Your task to perform on an android device: turn off javascript in the chrome app Image 0: 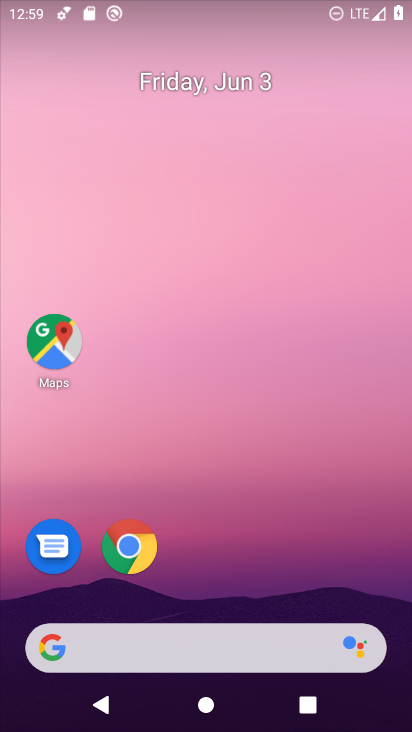
Step 0: click (132, 548)
Your task to perform on an android device: turn off javascript in the chrome app Image 1: 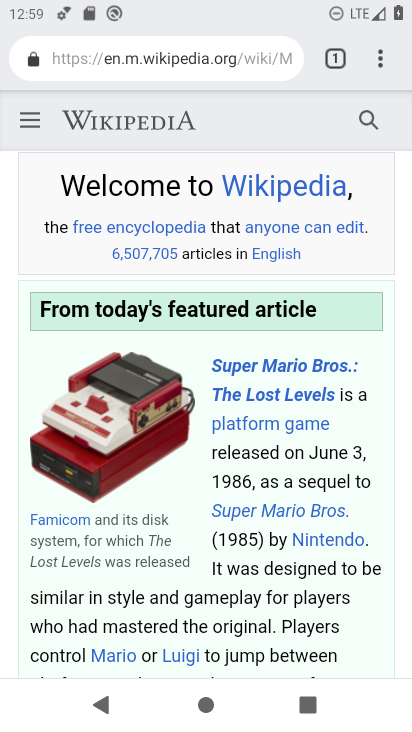
Step 1: click (382, 60)
Your task to perform on an android device: turn off javascript in the chrome app Image 2: 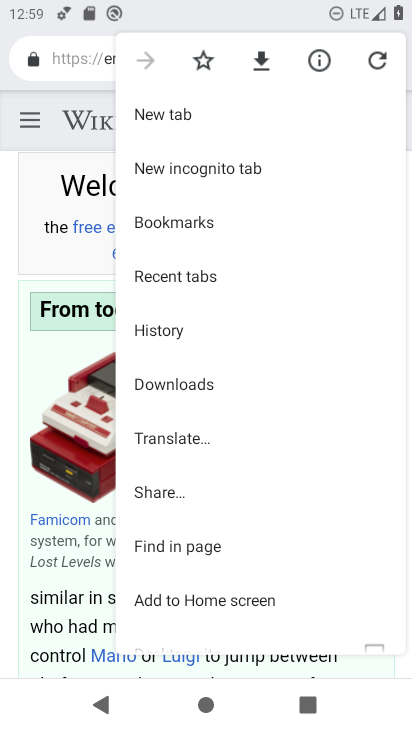
Step 2: drag from (176, 526) to (254, 440)
Your task to perform on an android device: turn off javascript in the chrome app Image 3: 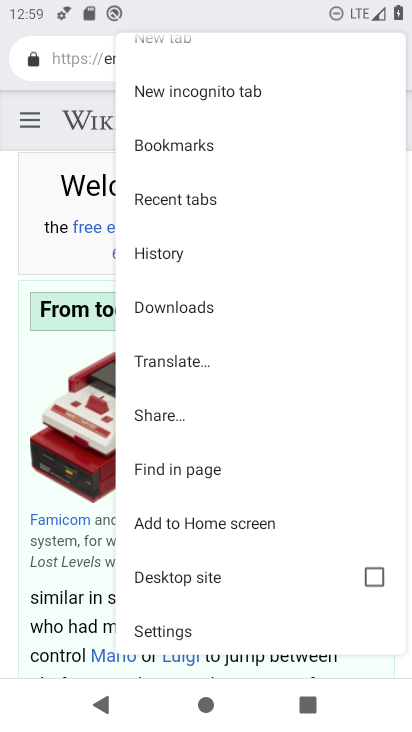
Step 3: drag from (183, 599) to (215, 507)
Your task to perform on an android device: turn off javascript in the chrome app Image 4: 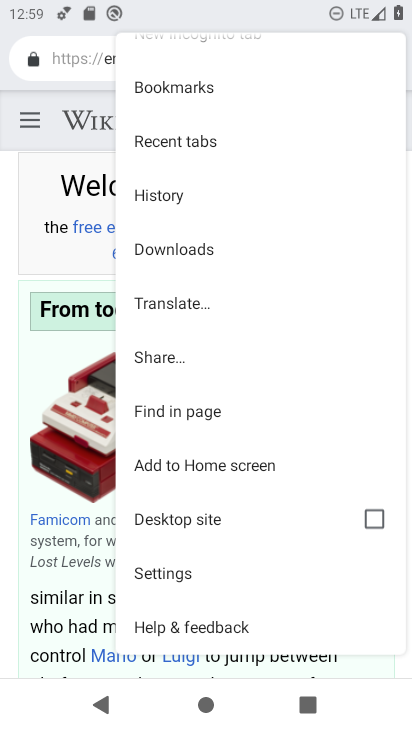
Step 4: click (181, 583)
Your task to perform on an android device: turn off javascript in the chrome app Image 5: 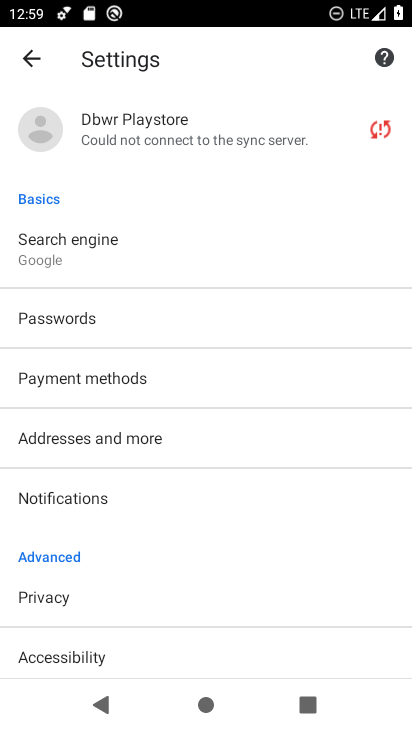
Step 5: drag from (102, 514) to (139, 442)
Your task to perform on an android device: turn off javascript in the chrome app Image 6: 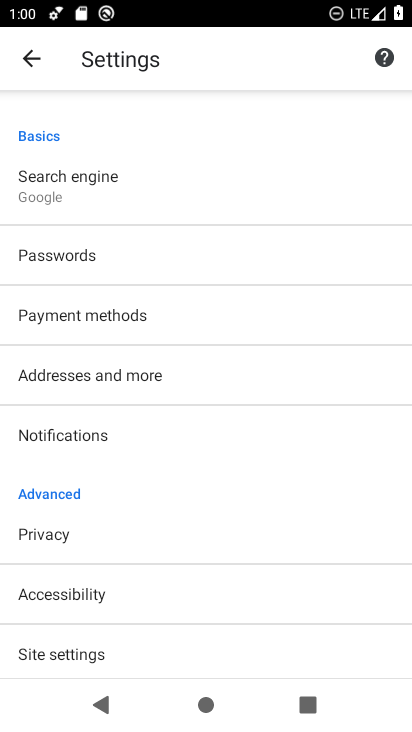
Step 6: drag from (124, 591) to (201, 492)
Your task to perform on an android device: turn off javascript in the chrome app Image 7: 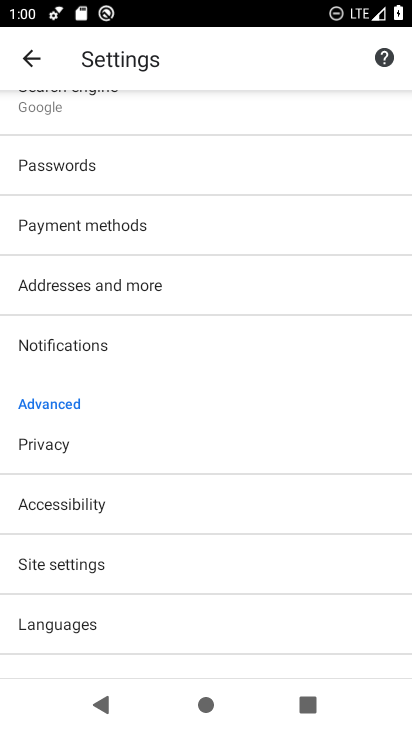
Step 7: click (88, 564)
Your task to perform on an android device: turn off javascript in the chrome app Image 8: 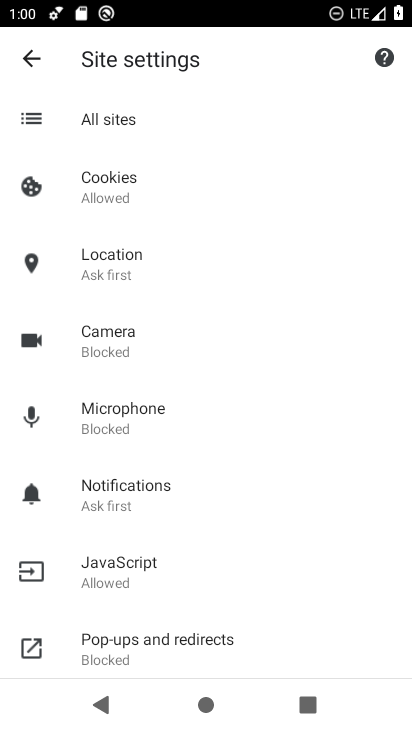
Step 8: click (134, 576)
Your task to perform on an android device: turn off javascript in the chrome app Image 9: 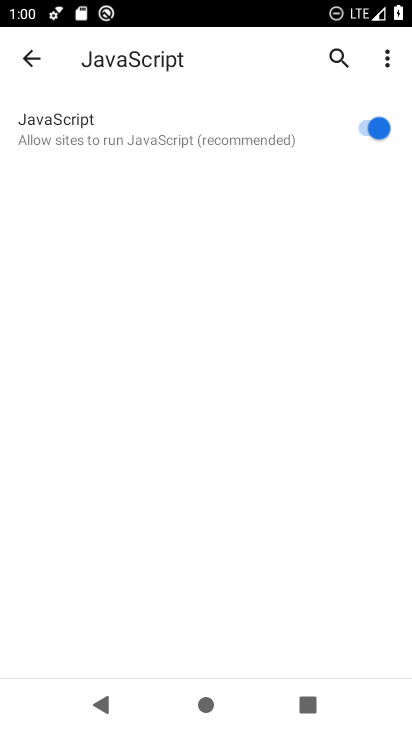
Step 9: click (365, 129)
Your task to perform on an android device: turn off javascript in the chrome app Image 10: 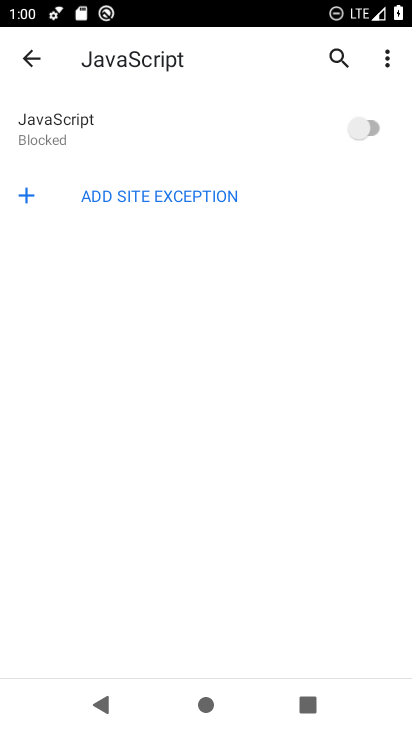
Step 10: task complete